Your task to perform on an android device: install app "DuckDuckGo Privacy Browser" Image 0: 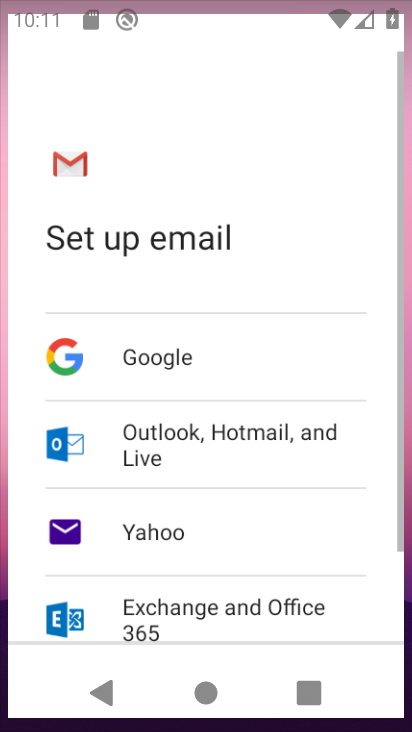
Step 0: drag from (240, 684) to (252, 156)
Your task to perform on an android device: install app "DuckDuckGo Privacy Browser" Image 1: 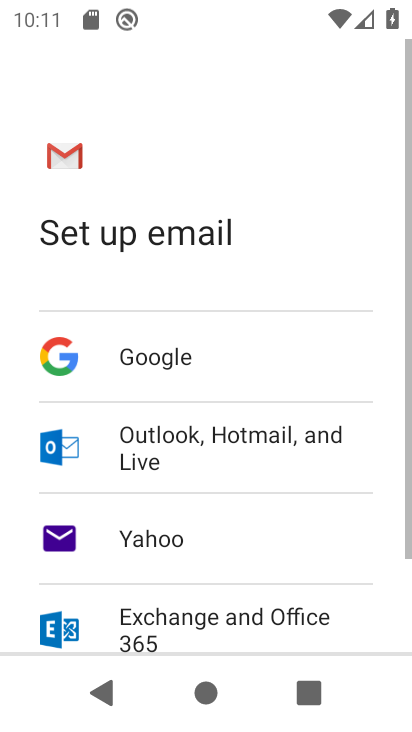
Step 1: press home button
Your task to perform on an android device: install app "DuckDuckGo Privacy Browser" Image 2: 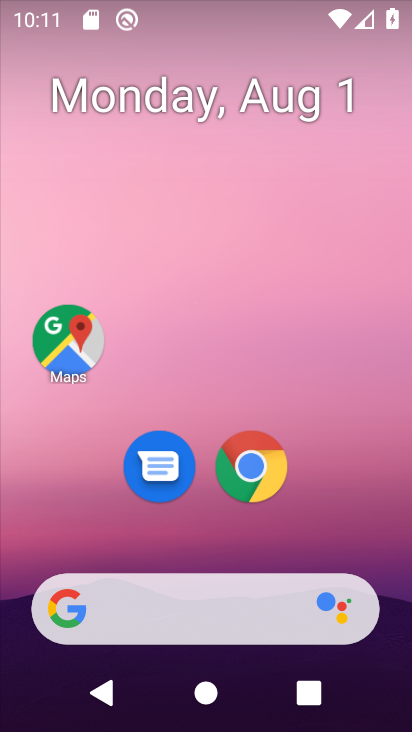
Step 2: drag from (230, 550) to (216, 123)
Your task to perform on an android device: install app "DuckDuckGo Privacy Browser" Image 3: 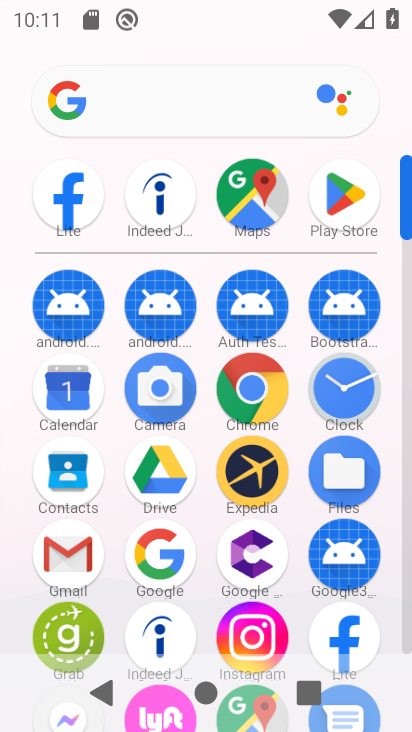
Step 3: click (345, 197)
Your task to perform on an android device: install app "DuckDuckGo Privacy Browser" Image 4: 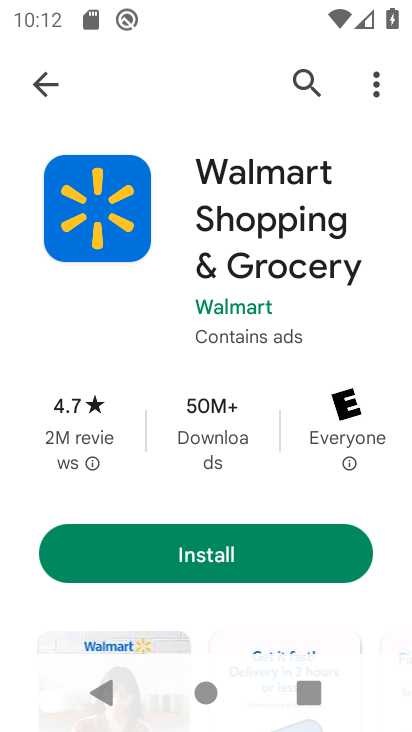
Step 4: click (307, 77)
Your task to perform on an android device: install app "DuckDuckGo Privacy Browser" Image 5: 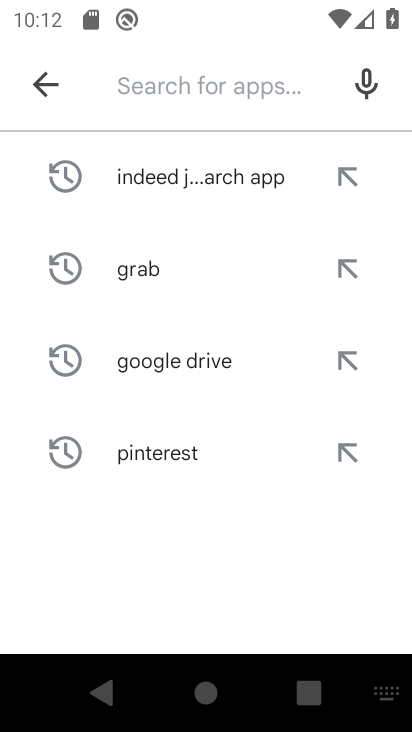
Step 5: type "DuckDuckGo Privacy Browser"
Your task to perform on an android device: install app "DuckDuckGo Privacy Browser" Image 6: 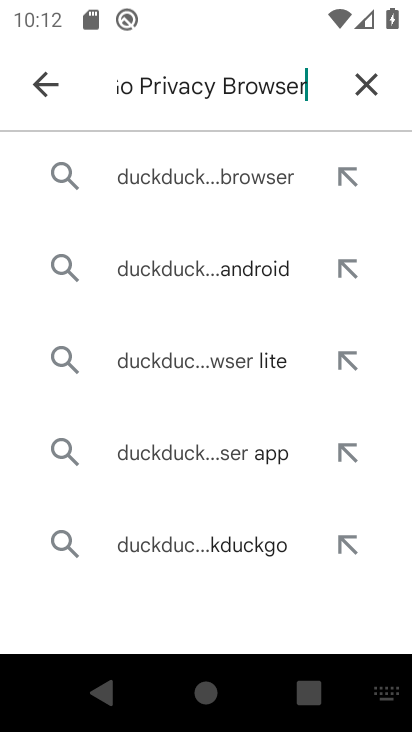
Step 6: click (248, 174)
Your task to perform on an android device: install app "DuckDuckGo Privacy Browser" Image 7: 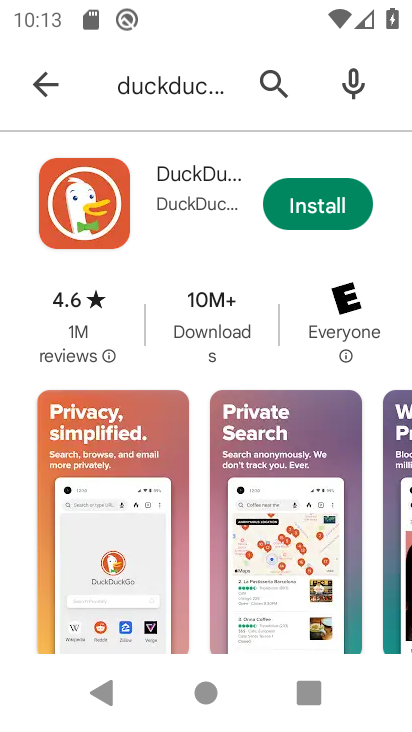
Step 7: click (296, 203)
Your task to perform on an android device: install app "DuckDuckGo Privacy Browser" Image 8: 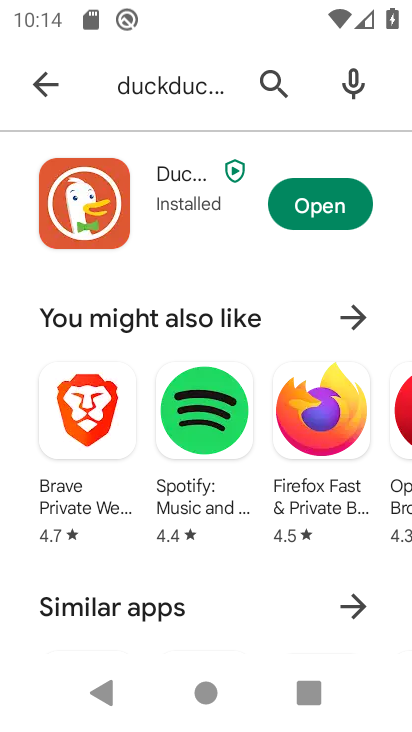
Step 8: task complete